Your task to perform on an android device: turn on priority inbox in the gmail app Image 0: 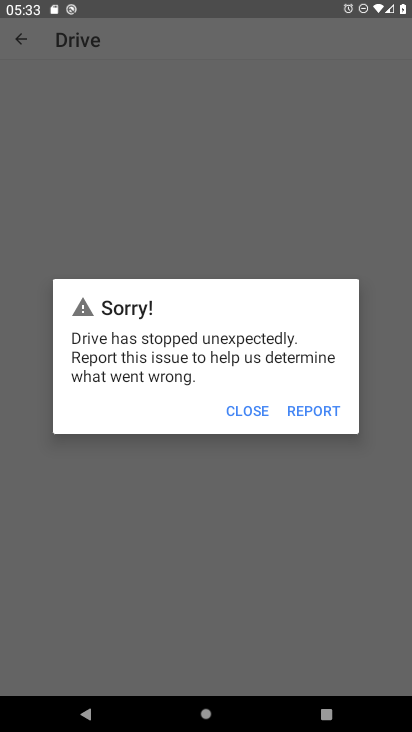
Step 0: press home button
Your task to perform on an android device: turn on priority inbox in the gmail app Image 1: 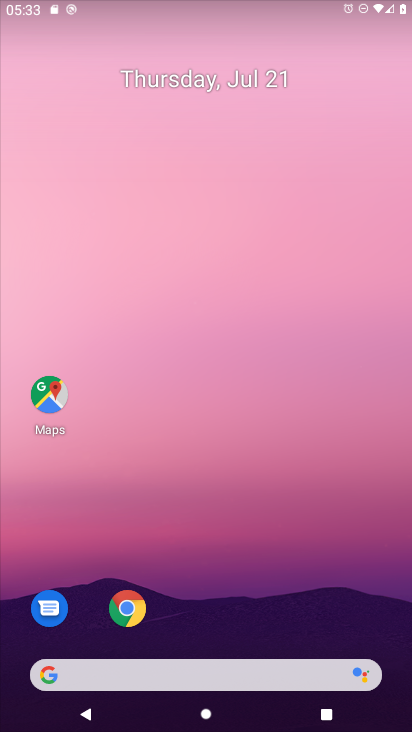
Step 1: drag from (260, 691) to (370, 95)
Your task to perform on an android device: turn on priority inbox in the gmail app Image 2: 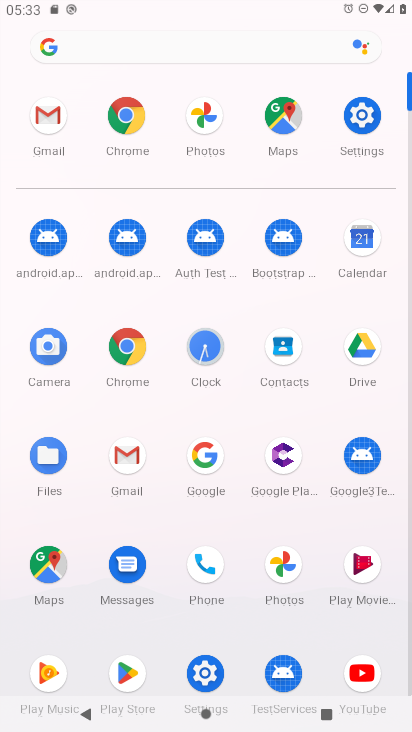
Step 2: click (132, 453)
Your task to perform on an android device: turn on priority inbox in the gmail app Image 3: 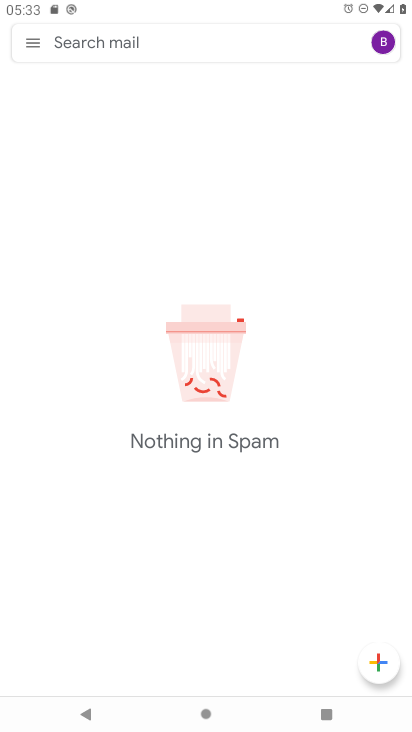
Step 3: click (32, 43)
Your task to perform on an android device: turn on priority inbox in the gmail app Image 4: 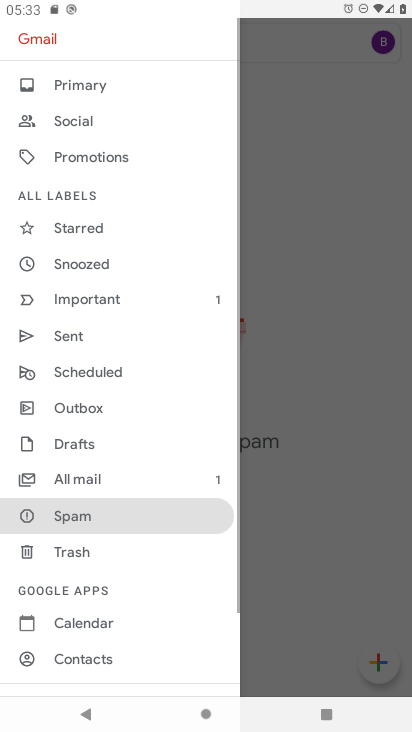
Step 4: drag from (115, 645) to (148, 382)
Your task to perform on an android device: turn on priority inbox in the gmail app Image 5: 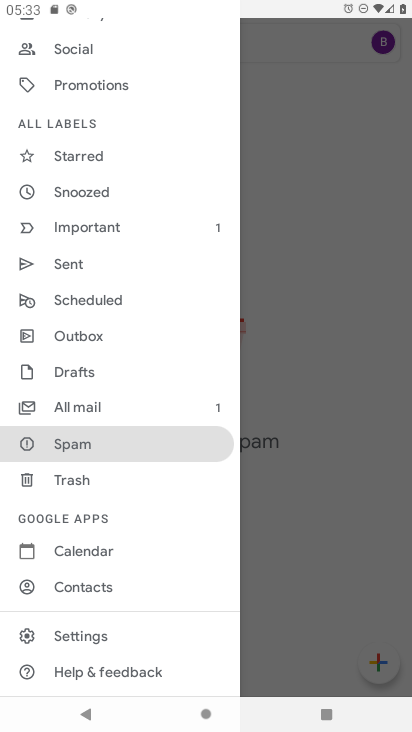
Step 5: click (85, 635)
Your task to perform on an android device: turn on priority inbox in the gmail app Image 6: 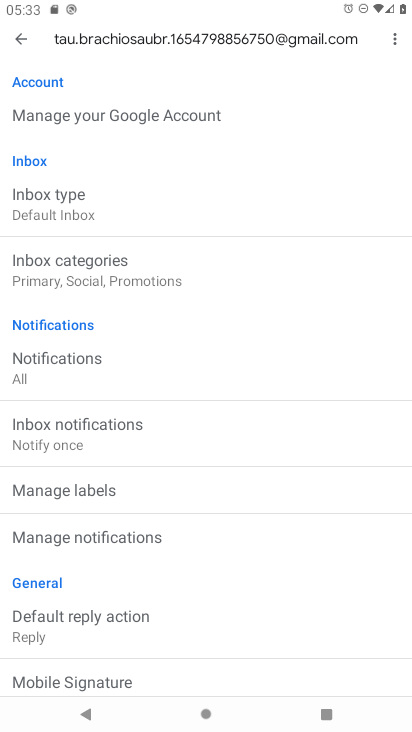
Step 6: drag from (79, 211) to (85, 719)
Your task to perform on an android device: turn on priority inbox in the gmail app Image 7: 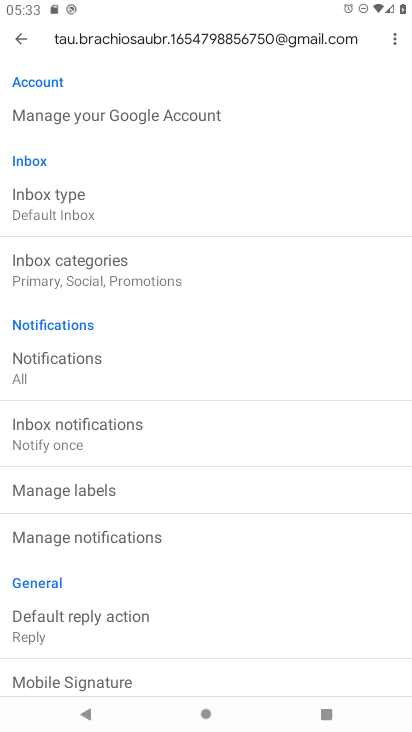
Step 7: click (72, 204)
Your task to perform on an android device: turn on priority inbox in the gmail app Image 8: 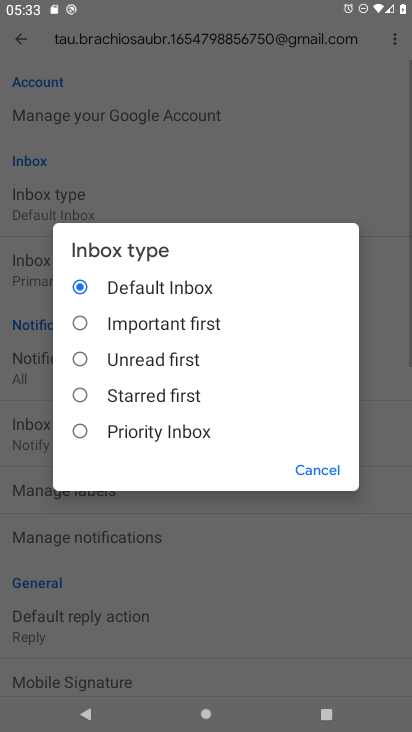
Step 8: click (92, 433)
Your task to perform on an android device: turn on priority inbox in the gmail app Image 9: 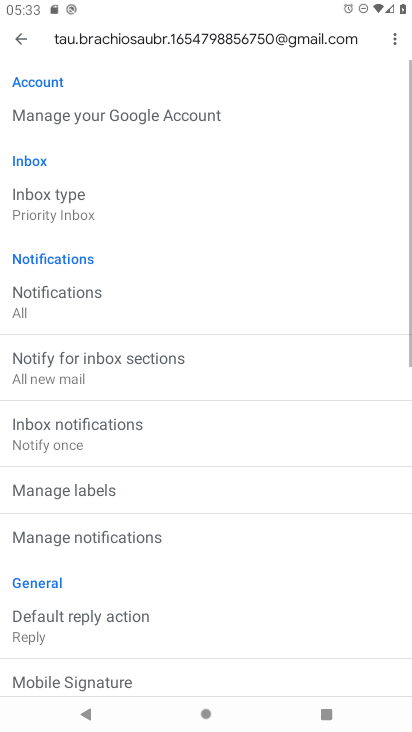
Step 9: task complete